Your task to perform on an android device: move a message to another label in the gmail app Image 0: 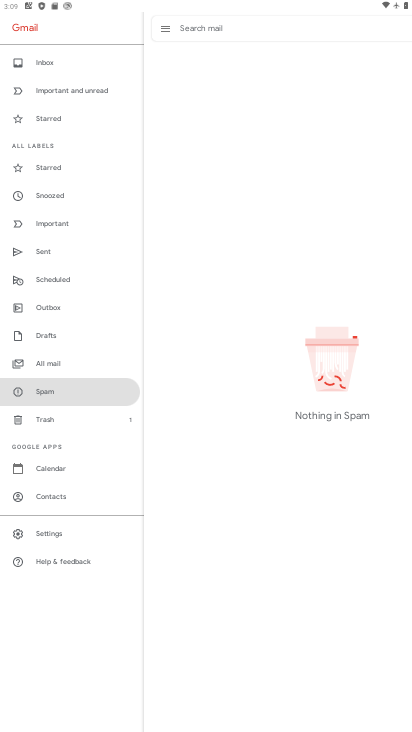
Step 0: press home button
Your task to perform on an android device: move a message to another label in the gmail app Image 1: 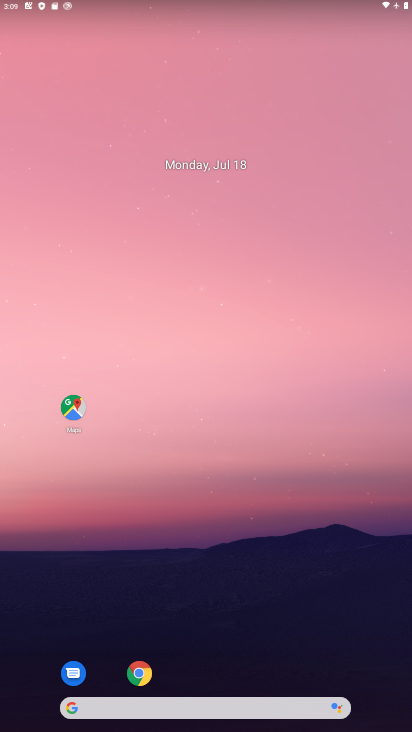
Step 1: drag from (223, 612) to (250, 258)
Your task to perform on an android device: move a message to another label in the gmail app Image 2: 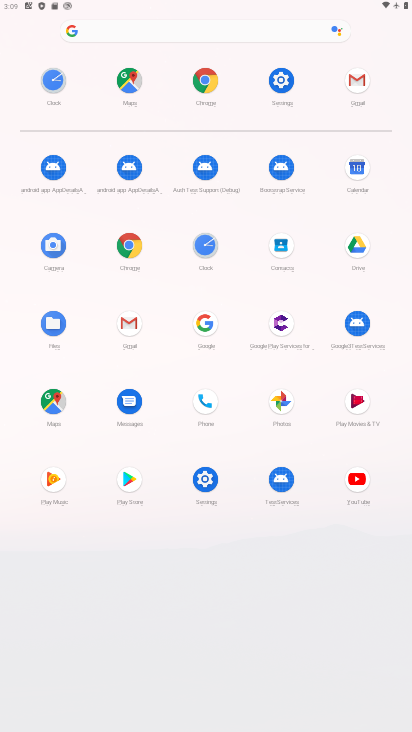
Step 2: click (365, 78)
Your task to perform on an android device: move a message to another label in the gmail app Image 3: 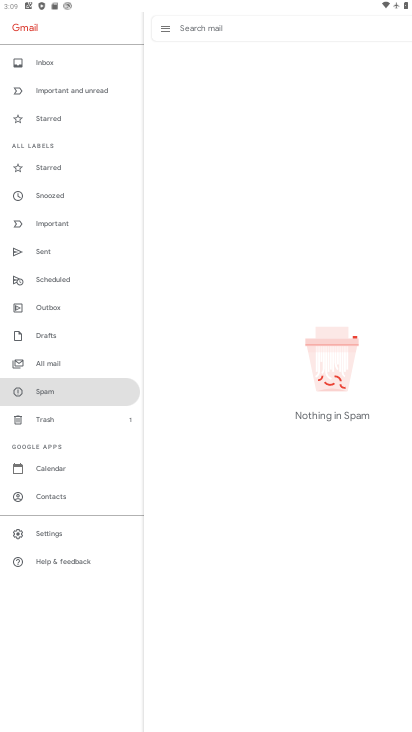
Step 3: click (51, 535)
Your task to perform on an android device: move a message to another label in the gmail app Image 4: 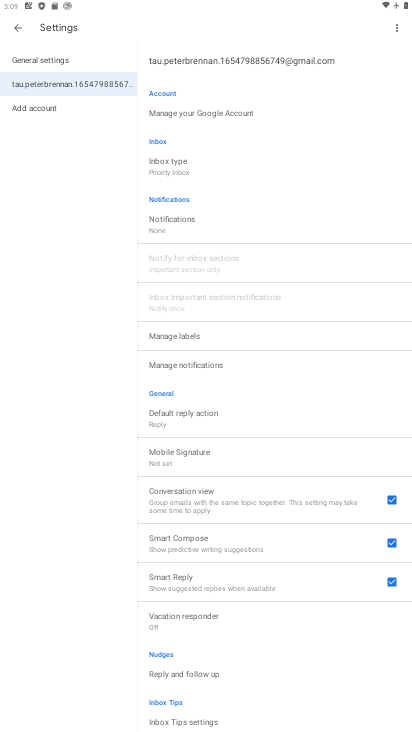
Step 4: task complete